Your task to perform on an android device: Open Reddit.com Image 0: 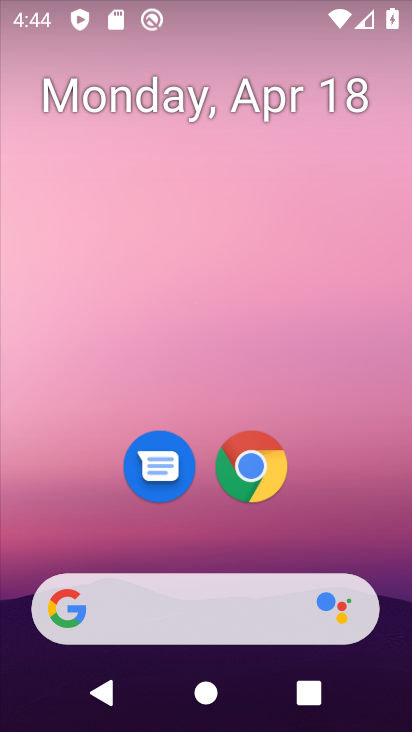
Step 0: drag from (321, 510) to (296, 7)
Your task to perform on an android device: Open Reddit.com Image 1: 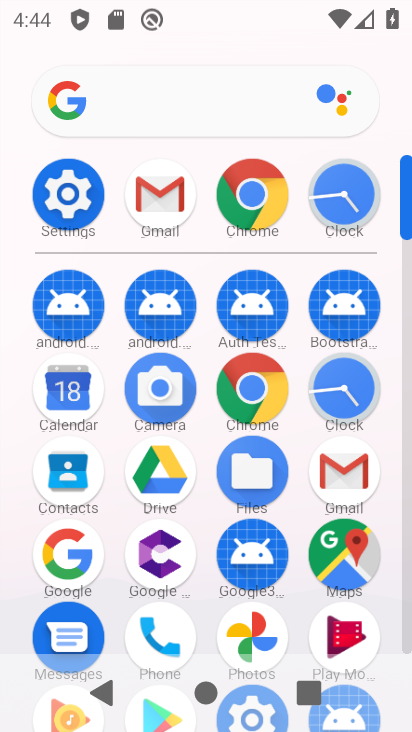
Step 1: drag from (12, 518) to (12, 271)
Your task to perform on an android device: Open Reddit.com Image 2: 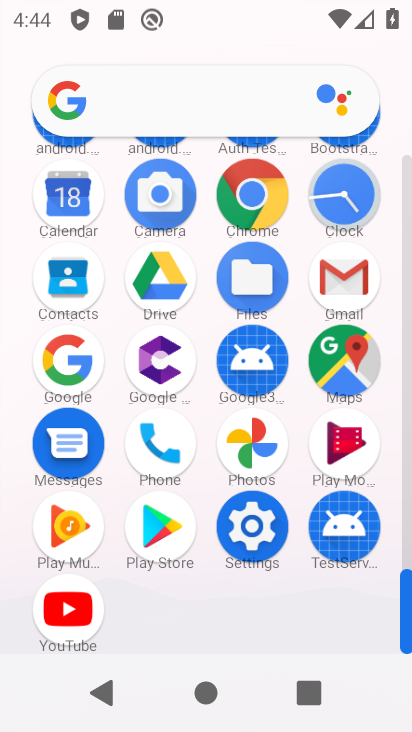
Step 2: click (244, 186)
Your task to perform on an android device: Open Reddit.com Image 3: 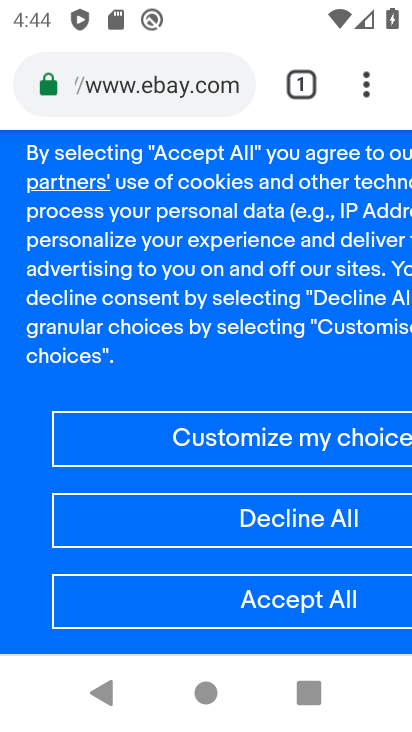
Step 3: click (207, 63)
Your task to perform on an android device: Open Reddit.com Image 4: 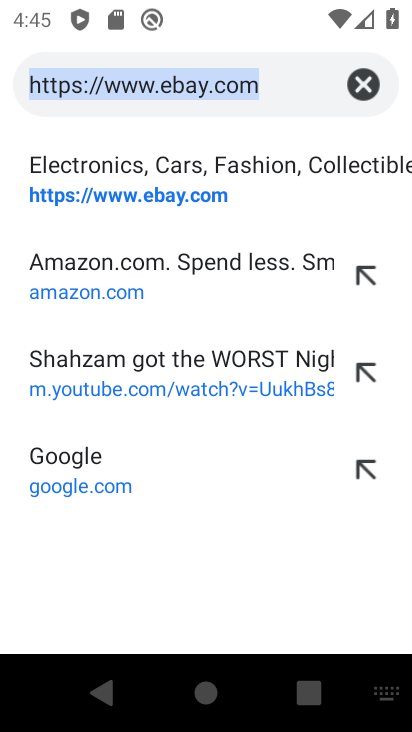
Step 4: click (353, 87)
Your task to perform on an android device: Open Reddit.com Image 5: 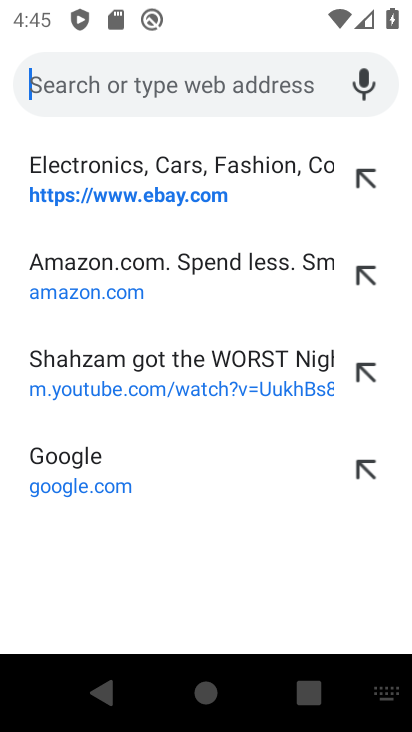
Step 5: type "Reddit.com"
Your task to perform on an android device: Open Reddit.com Image 6: 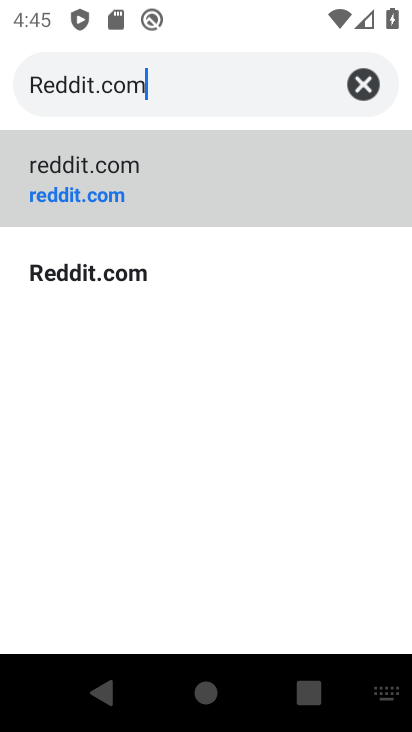
Step 6: click (146, 172)
Your task to perform on an android device: Open Reddit.com Image 7: 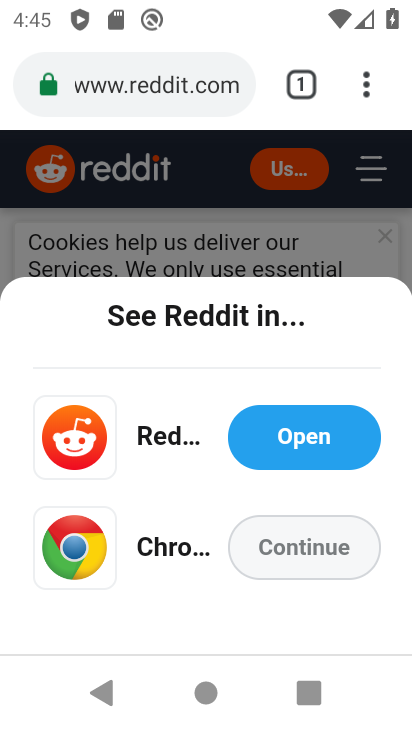
Step 7: task complete